Your task to perform on an android device: Turn on the flashlight Image 0: 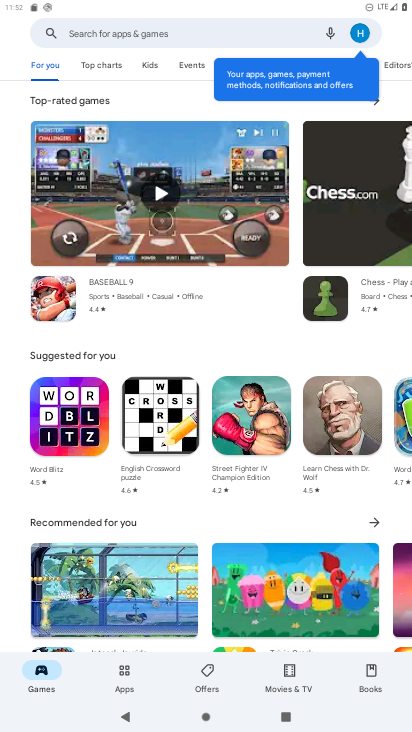
Step 0: press home button
Your task to perform on an android device: Turn on the flashlight Image 1: 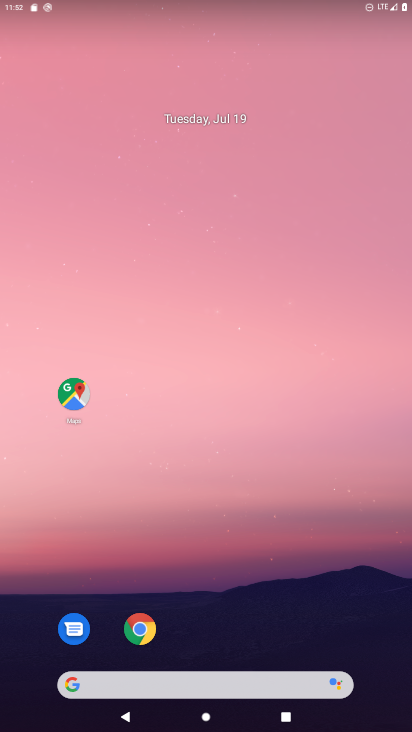
Step 1: task complete